Your task to perform on an android device: allow notifications from all sites in the chrome app Image 0: 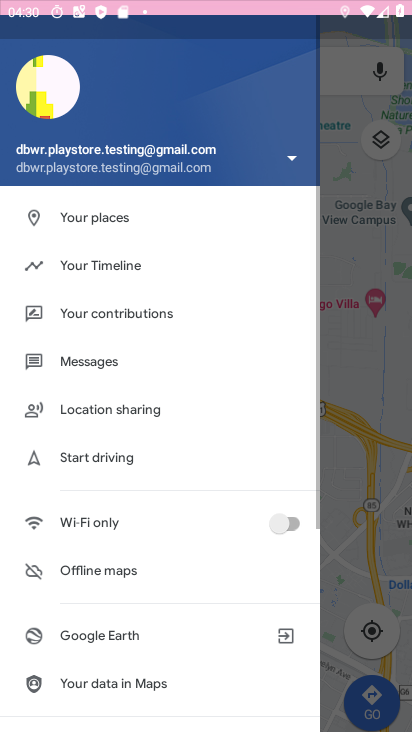
Step 0: click (151, 2)
Your task to perform on an android device: allow notifications from all sites in the chrome app Image 1: 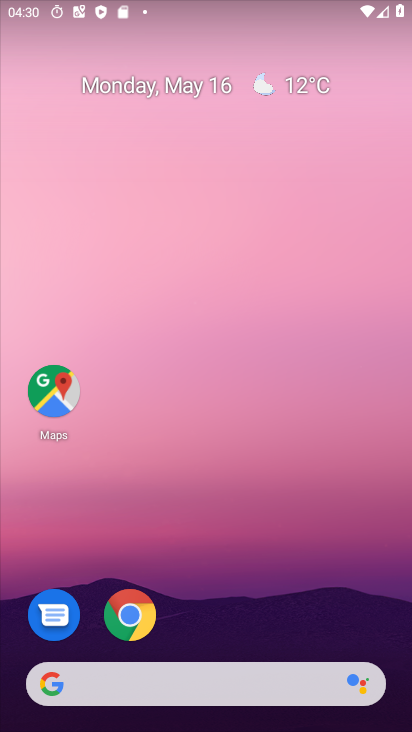
Step 1: drag from (237, 514) to (182, 1)
Your task to perform on an android device: allow notifications from all sites in the chrome app Image 2: 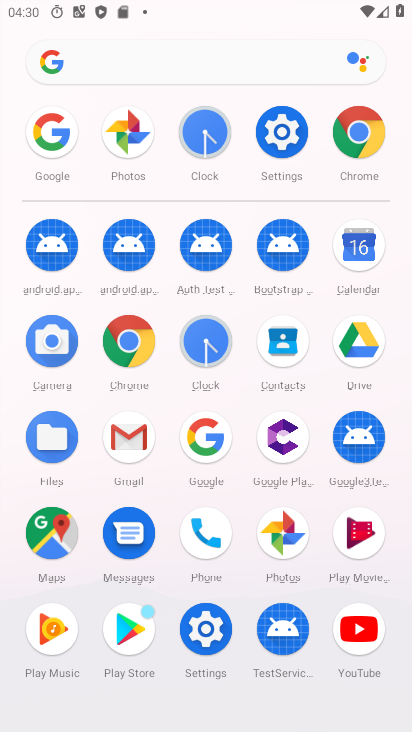
Step 2: drag from (213, 531) to (183, 15)
Your task to perform on an android device: allow notifications from all sites in the chrome app Image 3: 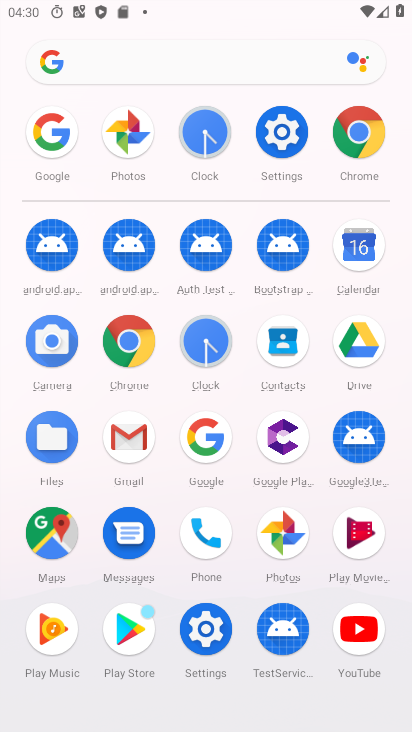
Step 3: click (354, 128)
Your task to perform on an android device: allow notifications from all sites in the chrome app Image 4: 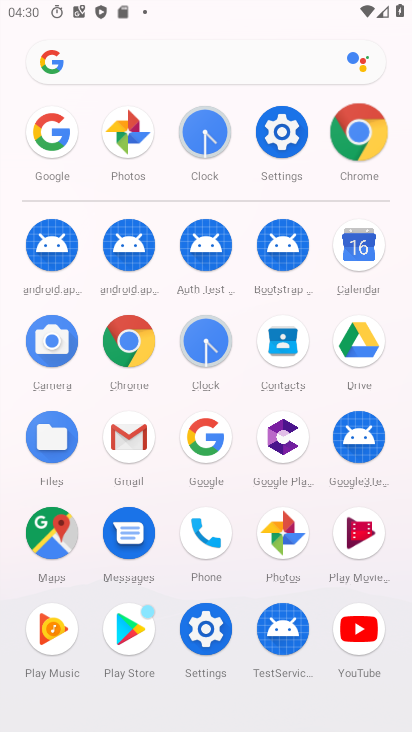
Step 4: click (356, 127)
Your task to perform on an android device: allow notifications from all sites in the chrome app Image 5: 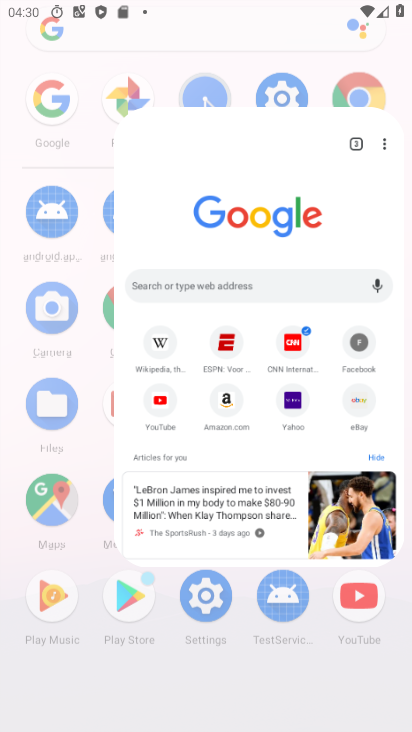
Step 5: click (356, 127)
Your task to perform on an android device: allow notifications from all sites in the chrome app Image 6: 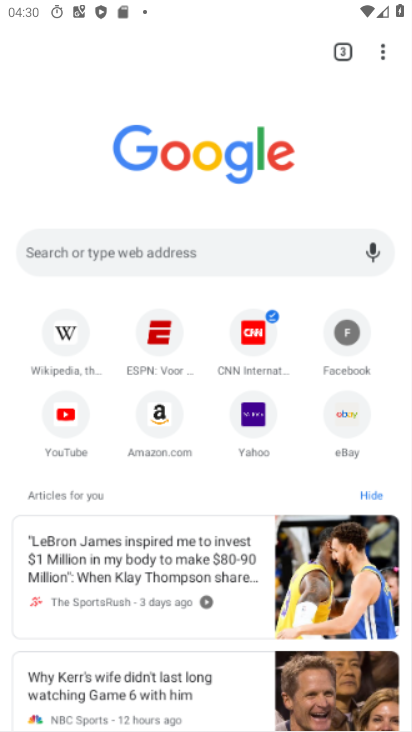
Step 6: click (356, 127)
Your task to perform on an android device: allow notifications from all sites in the chrome app Image 7: 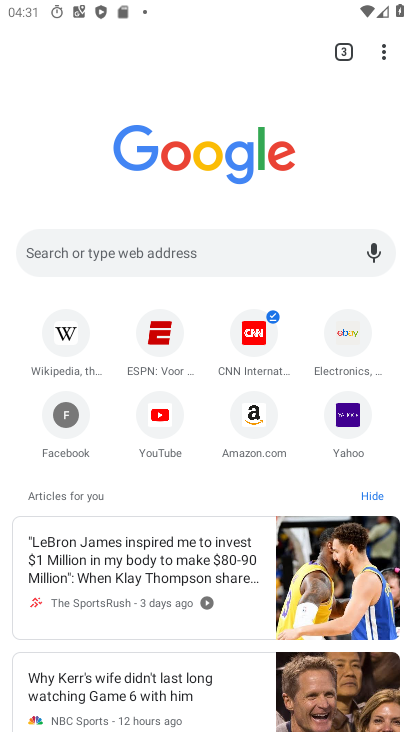
Step 7: drag from (384, 53) to (191, 148)
Your task to perform on an android device: allow notifications from all sites in the chrome app Image 8: 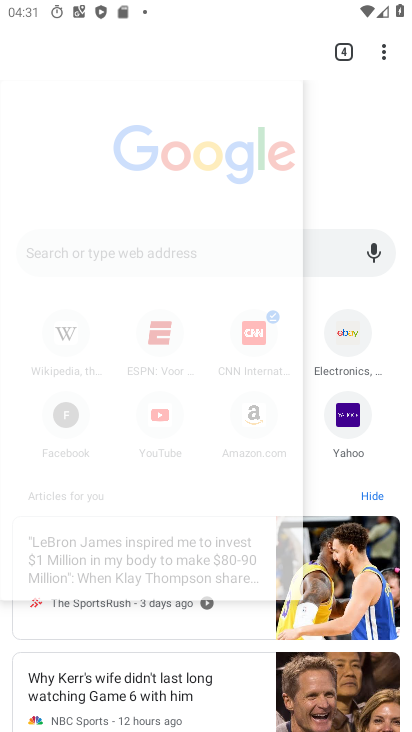
Step 8: click (191, 148)
Your task to perform on an android device: allow notifications from all sites in the chrome app Image 9: 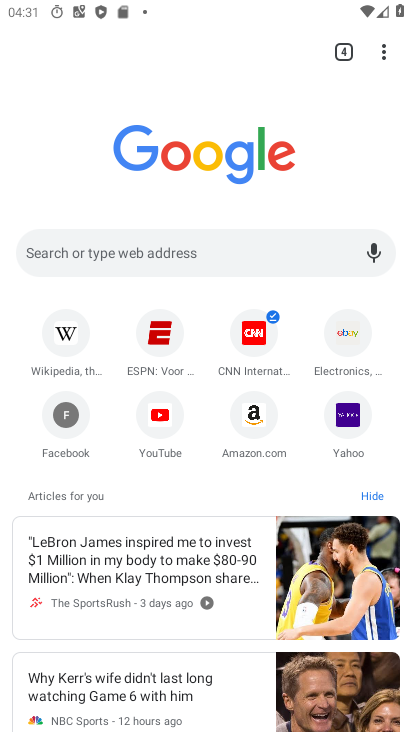
Step 9: click (383, 45)
Your task to perform on an android device: allow notifications from all sites in the chrome app Image 10: 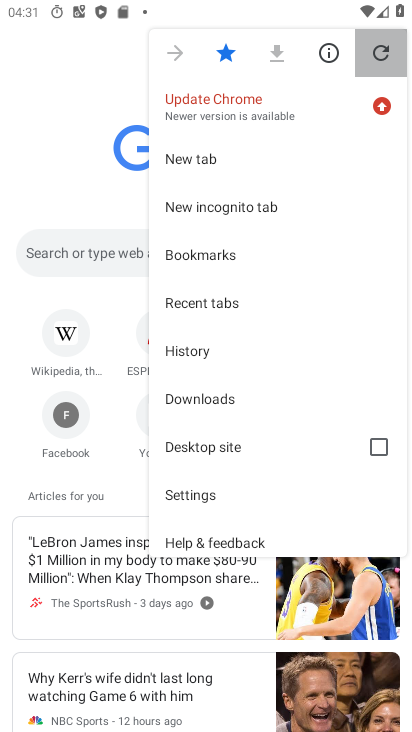
Step 10: click (378, 58)
Your task to perform on an android device: allow notifications from all sites in the chrome app Image 11: 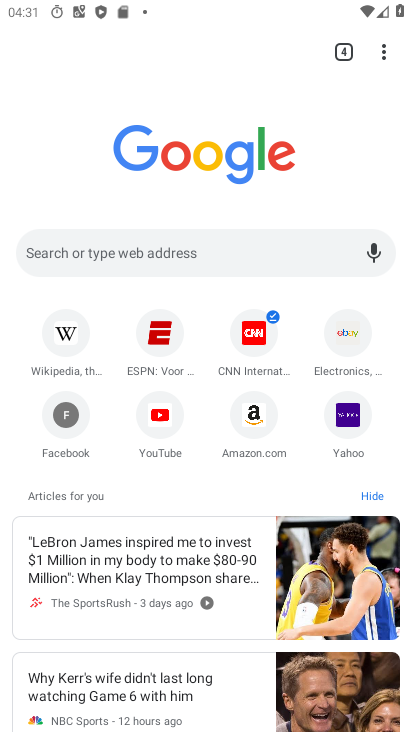
Step 11: click (382, 52)
Your task to perform on an android device: allow notifications from all sites in the chrome app Image 12: 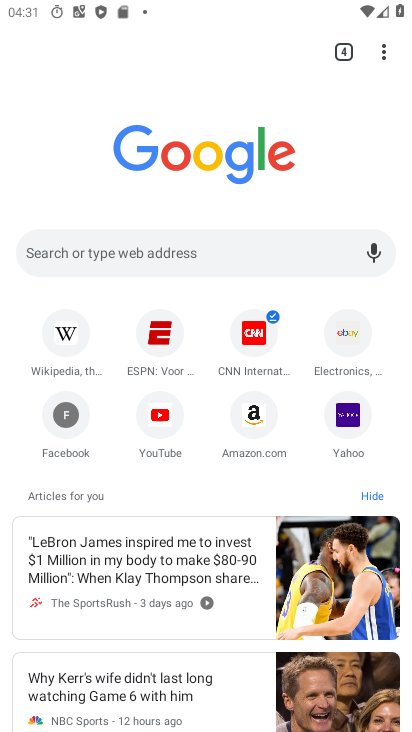
Step 12: click (379, 48)
Your task to perform on an android device: allow notifications from all sites in the chrome app Image 13: 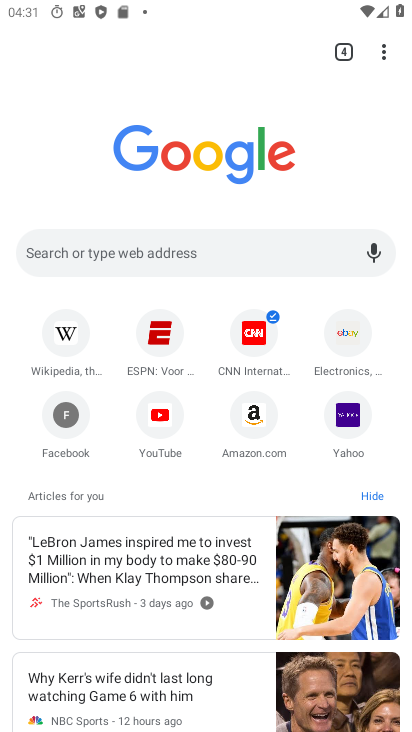
Step 13: click (380, 53)
Your task to perform on an android device: allow notifications from all sites in the chrome app Image 14: 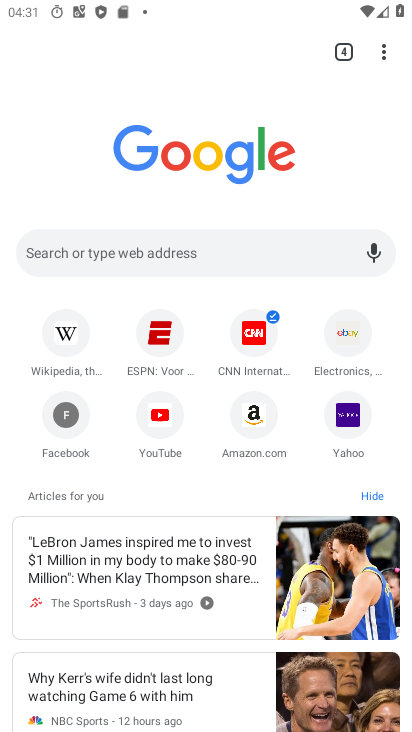
Step 14: drag from (380, 54) to (183, 144)
Your task to perform on an android device: allow notifications from all sites in the chrome app Image 15: 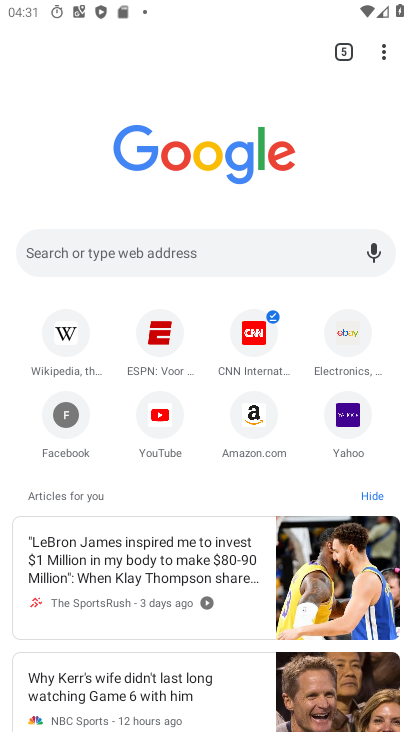
Step 15: click (377, 63)
Your task to perform on an android device: allow notifications from all sites in the chrome app Image 16: 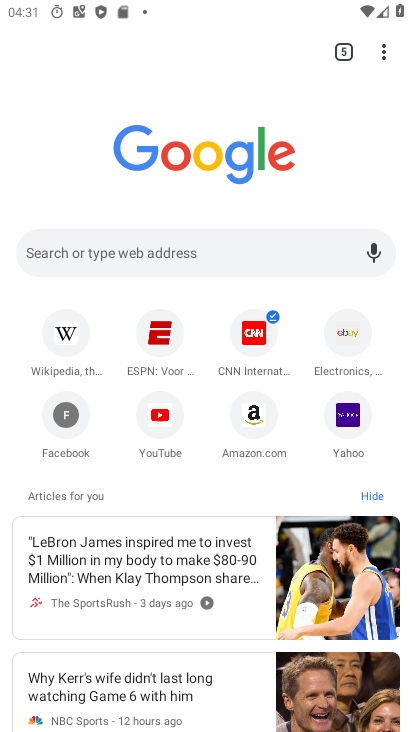
Step 16: click (383, 44)
Your task to perform on an android device: allow notifications from all sites in the chrome app Image 17: 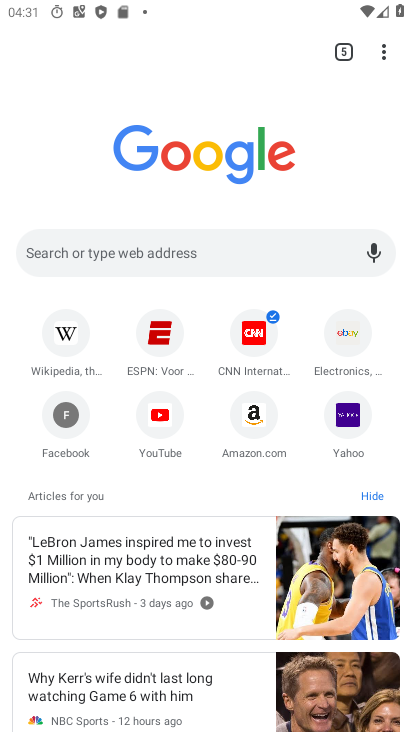
Step 17: click (381, 50)
Your task to perform on an android device: allow notifications from all sites in the chrome app Image 18: 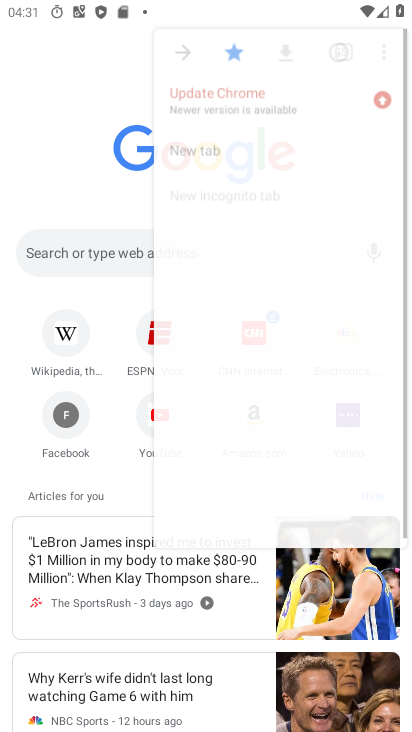
Step 18: click (381, 66)
Your task to perform on an android device: allow notifications from all sites in the chrome app Image 19: 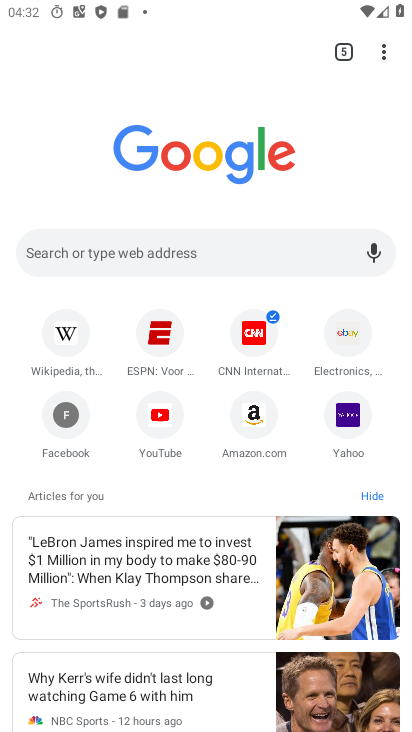
Step 19: click (388, 57)
Your task to perform on an android device: allow notifications from all sites in the chrome app Image 20: 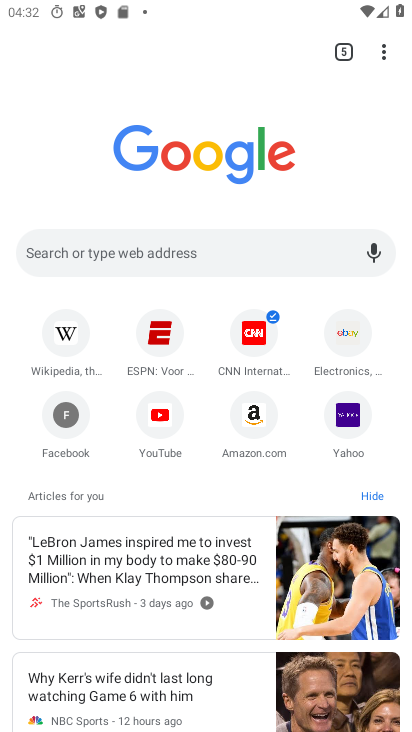
Step 20: click (380, 53)
Your task to perform on an android device: allow notifications from all sites in the chrome app Image 21: 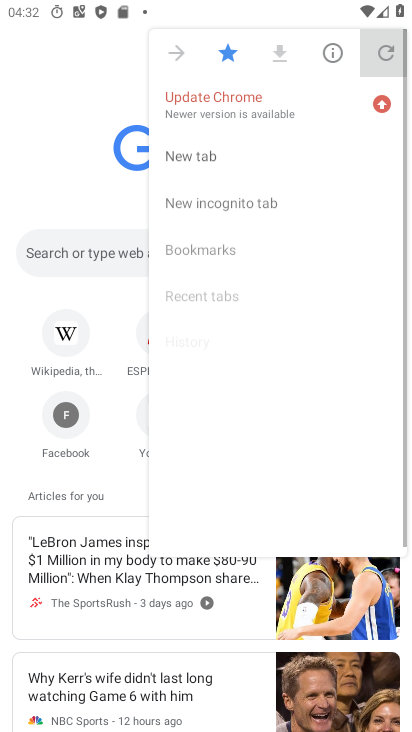
Step 21: click (381, 52)
Your task to perform on an android device: allow notifications from all sites in the chrome app Image 22: 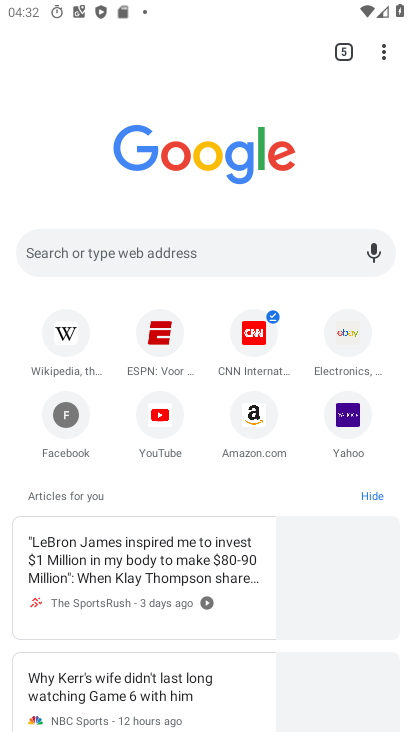
Step 22: click (378, 56)
Your task to perform on an android device: allow notifications from all sites in the chrome app Image 23: 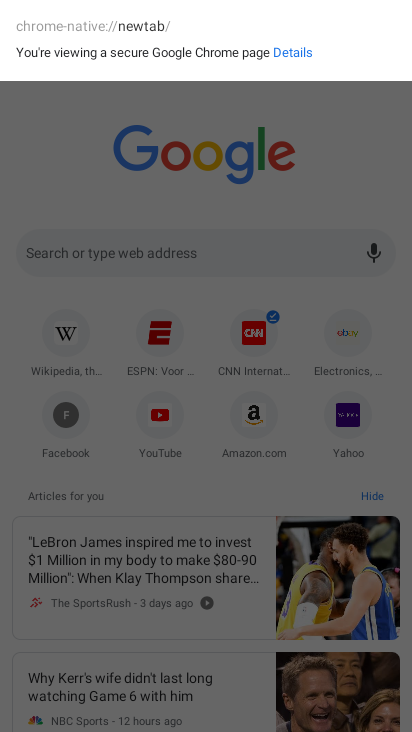
Step 23: click (342, 179)
Your task to perform on an android device: allow notifications from all sites in the chrome app Image 24: 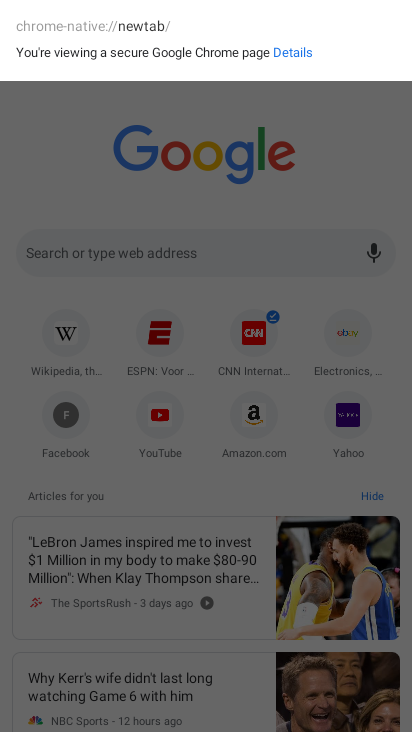
Step 24: click (343, 180)
Your task to perform on an android device: allow notifications from all sites in the chrome app Image 25: 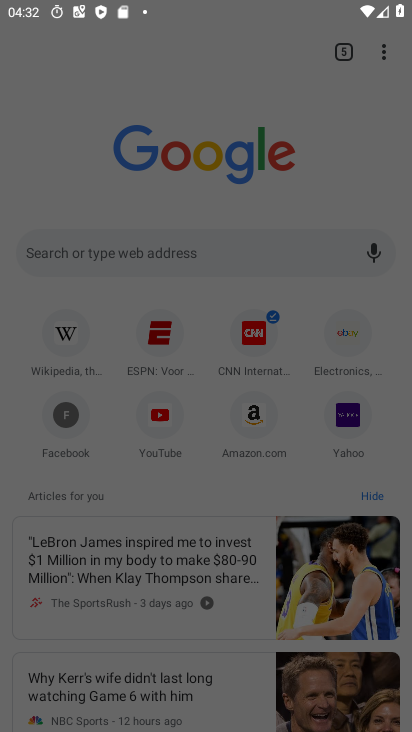
Step 25: click (343, 180)
Your task to perform on an android device: allow notifications from all sites in the chrome app Image 26: 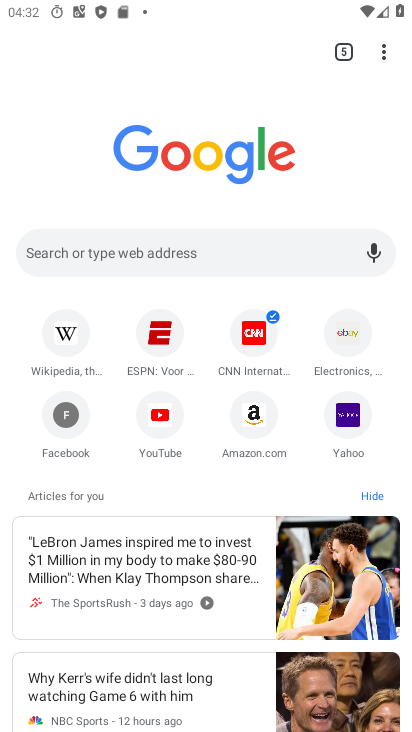
Step 26: click (343, 180)
Your task to perform on an android device: allow notifications from all sites in the chrome app Image 27: 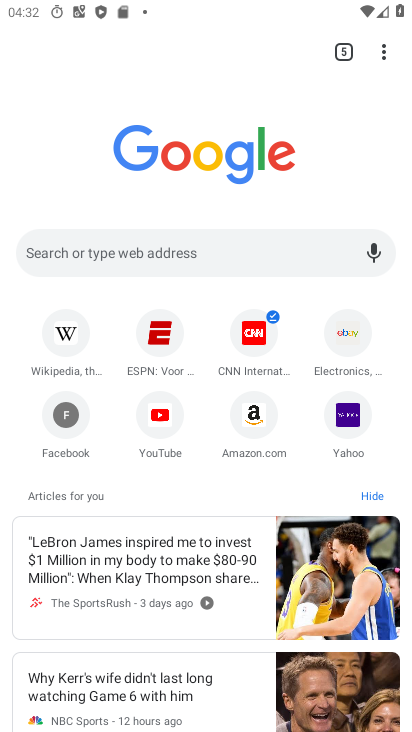
Step 27: click (385, 79)
Your task to perform on an android device: allow notifications from all sites in the chrome app Image 28: 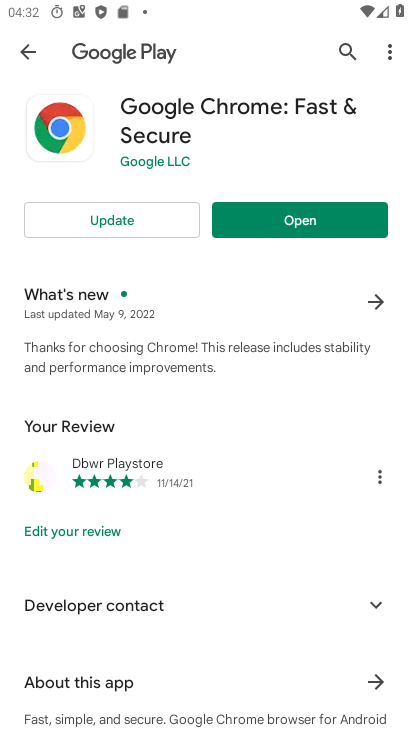
Step 28: click (142, 228)
Your task to perform on an android device: allow notifications from all sites in the chrome app Image 29: 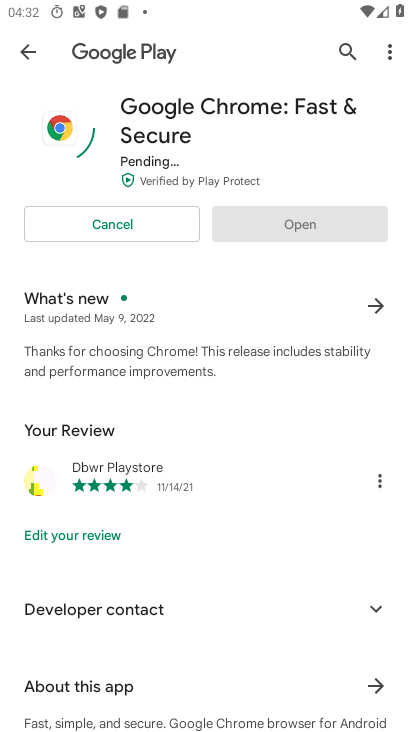
Step 29: click (141, 223)
Your task to perform on an android device: allow notifications from all sites in the chrome app Image 30: 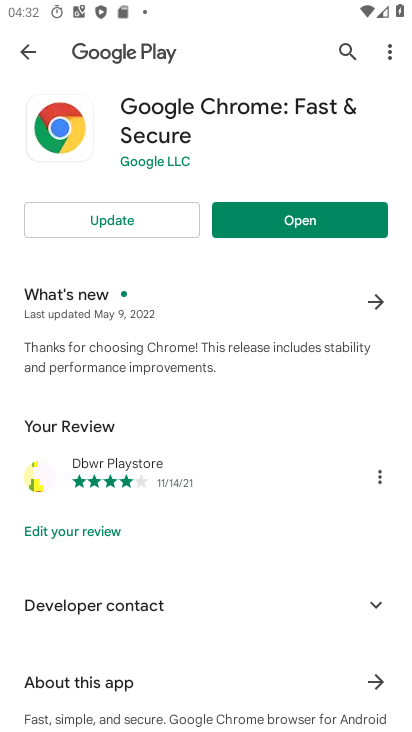
Step 30: click (298, 229)
Your task to perform on an android device: allow notifications from all sites in the chrome app Image 31: 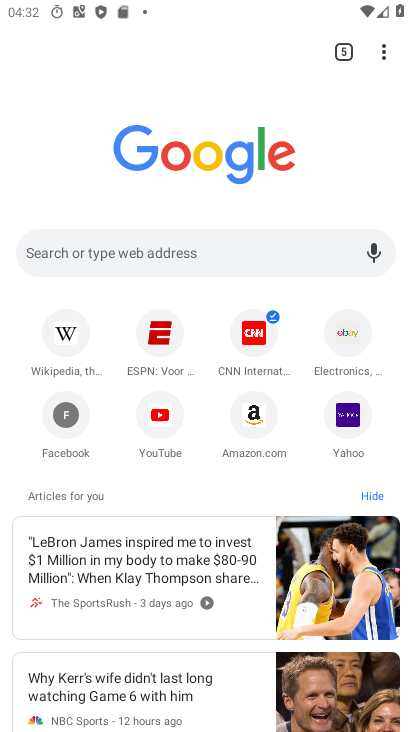
Step 31: drag from (207, 561) to (136, 192)
Your task to perform on an android device: allow notifications from all sites in the chrome app Image 32: 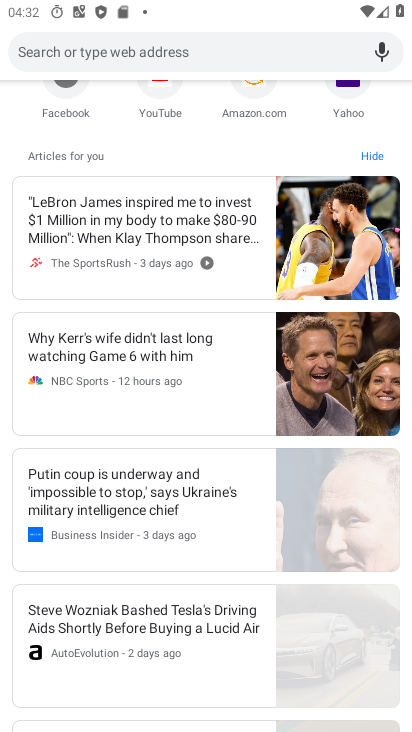
Step 32: drag from (282, 190) to (275, 67)
Your task to perform on an android device: allow notifications from all sites in the chrome app Image 33: 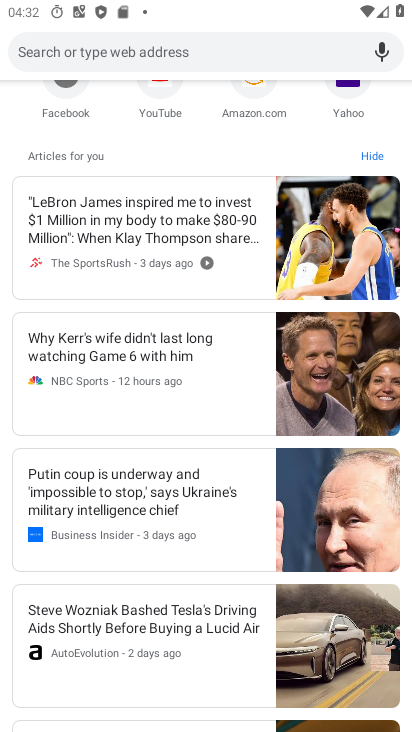
Step 33: drag from (210, 456) to (220, 162)
Your task to perform on an android device: allow notifications from all sites in the chrome app Image 34: 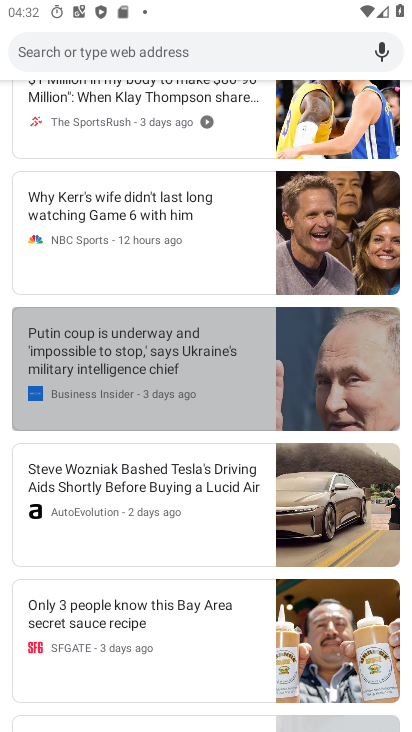
Step 34: drag from (315, 582) to (292, 257)
Your task to perform on an android device: allow notifications from all sites in the chrome app Image 35: 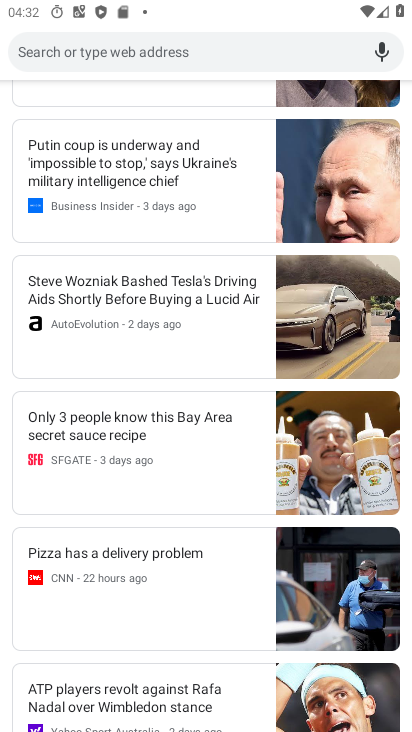
Step 35: drag from (72, 282) to (201, 648)
Your task to perform on an android device: allow notifications from all sites in the chrome app Image 36: 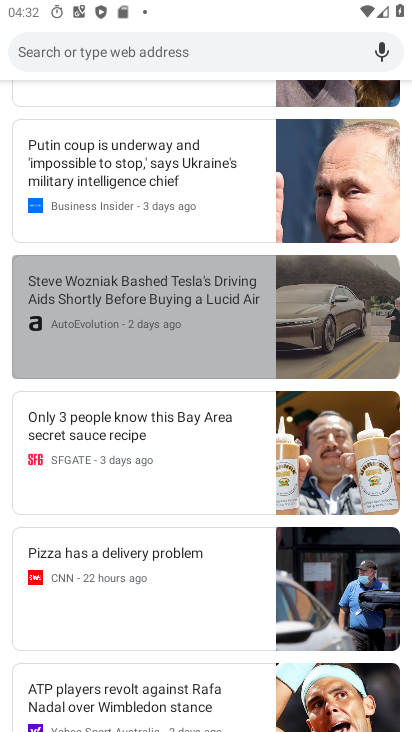
Step 36: drag from (152, 378) to (204, 724)
Your task to perform on an android device: allow notifications from all sites in the chrome app Image 37: 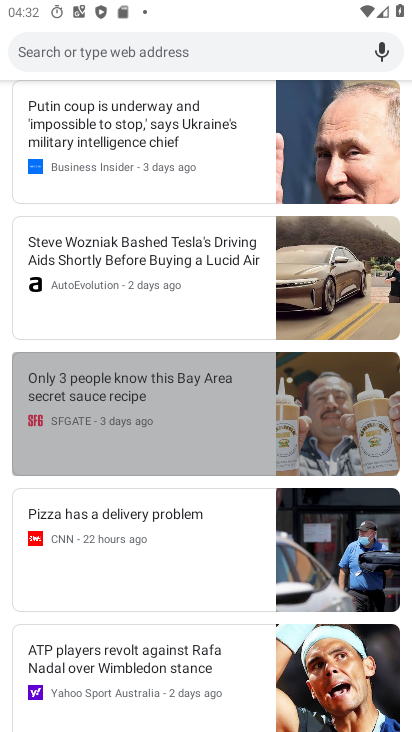
Step 37: drag from (202, 337) to (177, 730)
Your task to perform on an android device: allow notifications from all sites in the chrome app Image 38: 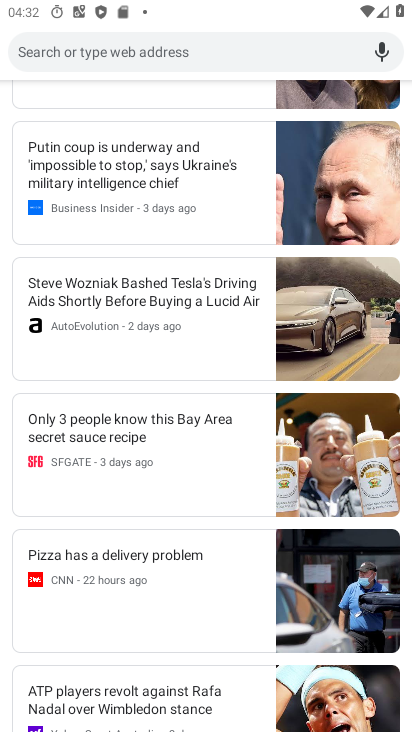
Step 38: drag from (146, 272) to (216, 663)
Your task to perform on an android device: allow notifications from all sites in the chrome app Image 39: 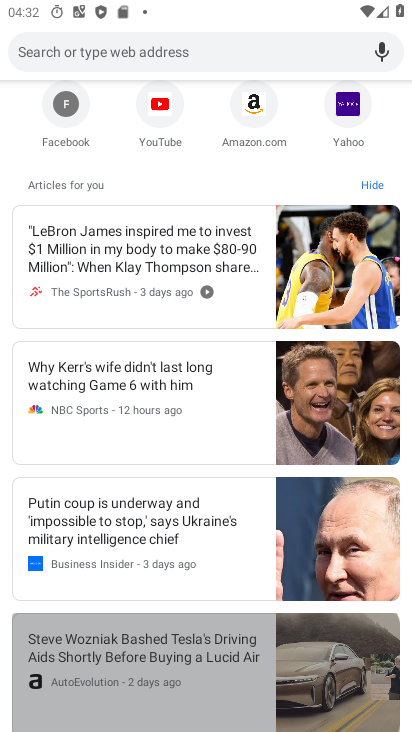
Step 39: drag from (136, 301) to (347, 709)
Your task to perform on an android device: allow notifications from all sites in the chrome app Image 40: 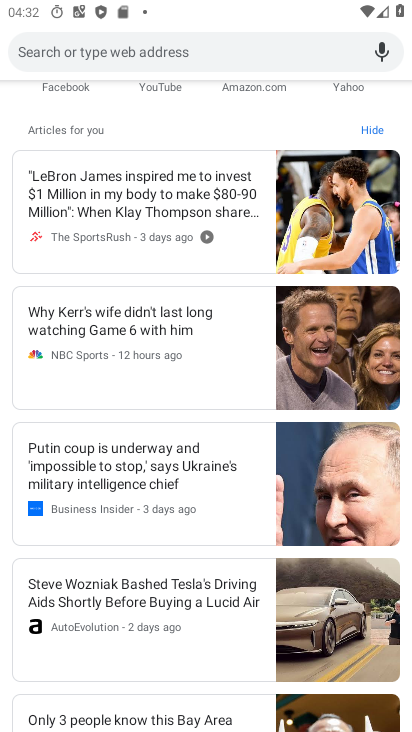
Step 40: click (336, 450)
Your task to perform on an android device: allow notifications from all sites in the chrome app Image 41: 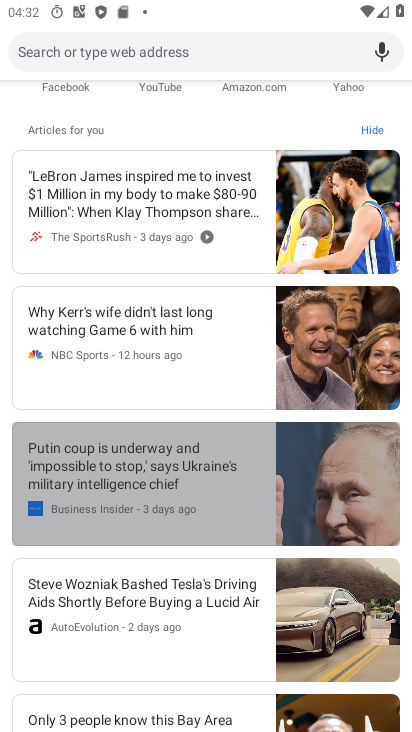
Step 41: drag from (304, 308) to (304, 412)
Your task to perform on an android device: allow notifications from all sites in the chrome app Image 42: 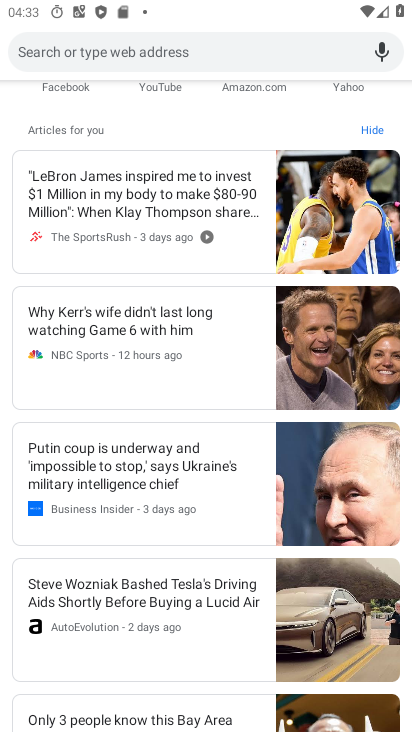
Step 42: drag from (220, 499) to (185, 380)
Your task to perform on an android device: allow notifications from all sites in the chrome app Image 43: 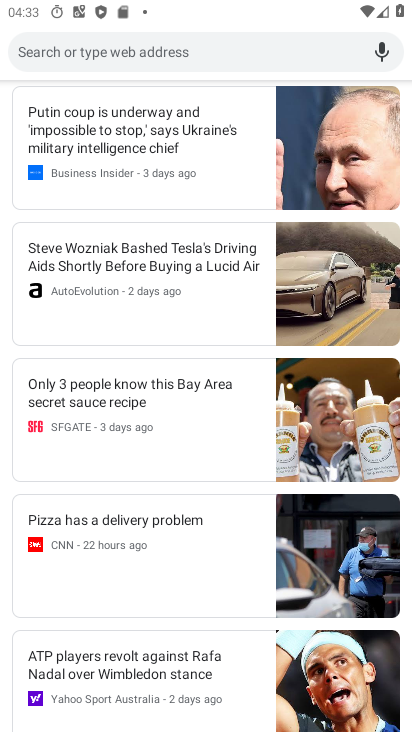
Step 43: drag from (167, 204) to (255, 417)
Your task to perform on an android device: allow notifications from all sites in the chrome app Image 44: 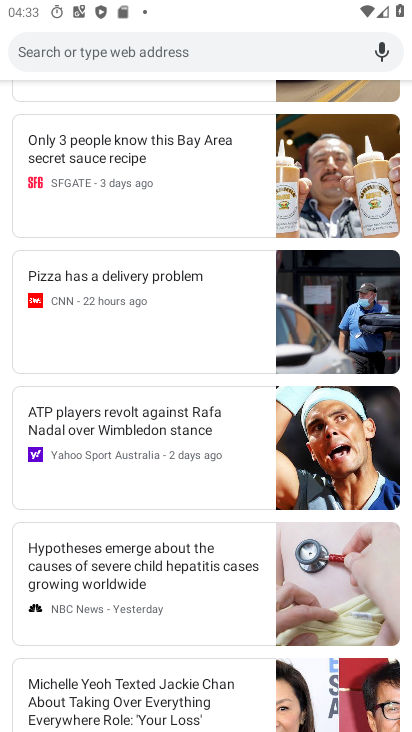
Step 44: drag from (209, 78) to (276, 276)
Your task to perform on an android device: allow notifications from all sites in the chrome app Image 45: 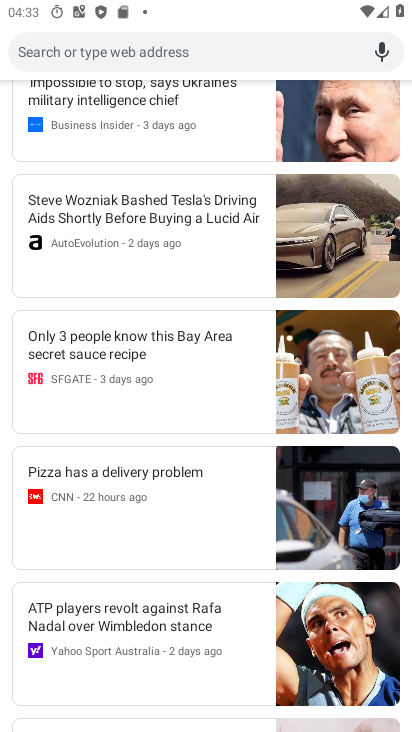
Step 45: drag from (159, 156) to (232, 417)
Your task to perform on an android device: allow notifications from all sites in the chrome app Image 46: 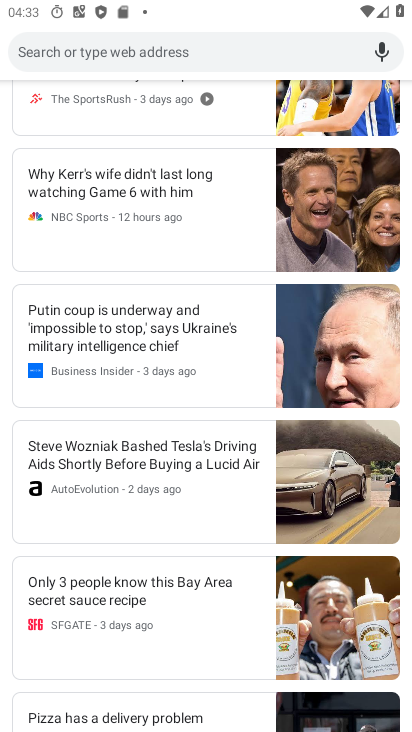
Step 46: drag from (221, 169) to (306, 451)
Your task to perform on an android device: allow notifications from all sites in the chrome app Image 47: 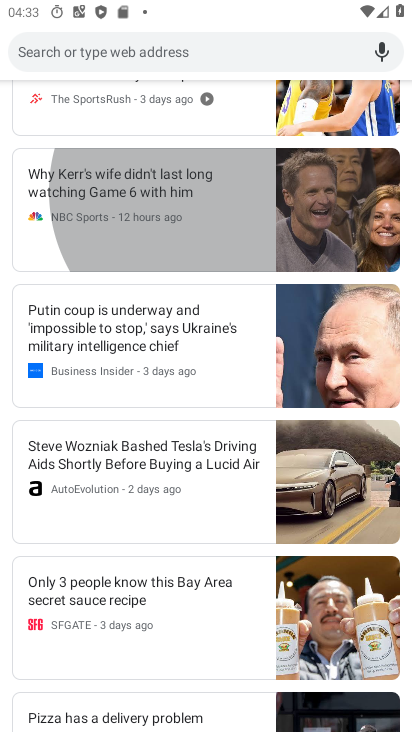
Step 47: drag from (268, 178) to (223, 724)
Your task to perform on an android device: allow notifications from all sites in the chrome app Image 48: 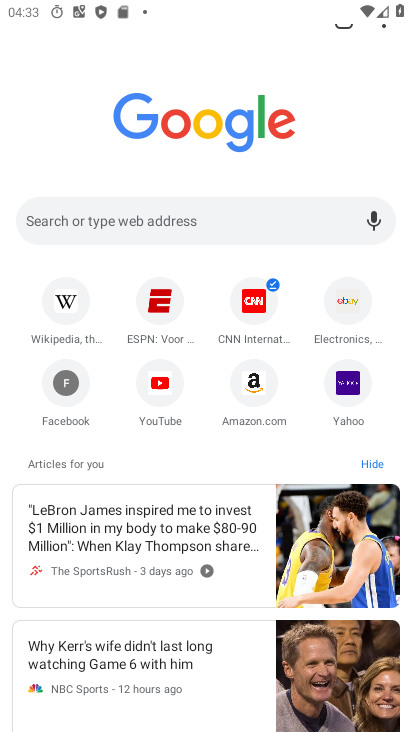
Step 48: click (269, 593)
Your task to perform on an android device: allow notifications from all sites in the chrome app Image 49: 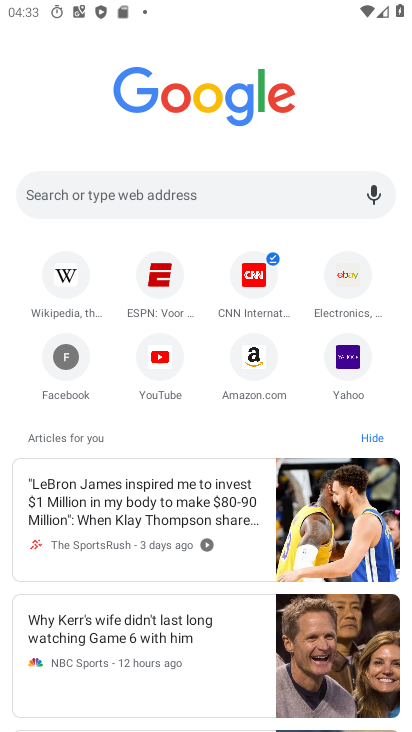
Step 49: drag from (84, 227) to (279, 578)
Your task to perform on an android device: allow notifications from all sites in the chrome app Image 50: 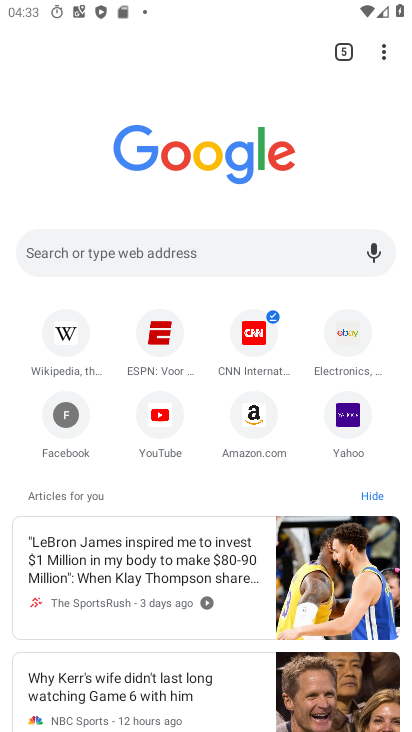
Step 50: drag from (384, 51) to (178, 493)
Your task to perform on an android device: allow notifications from all sites in the chrome app Image 51: 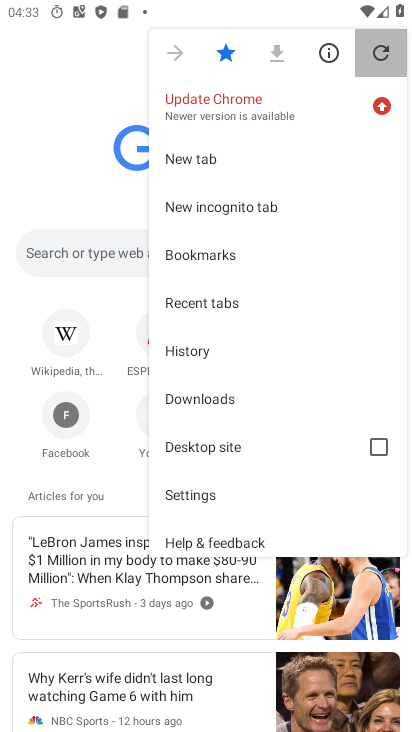
Step 51: click (179, 494)
Your task to perform on an android device: allow notifications from all sites in the chrome app Image 52: 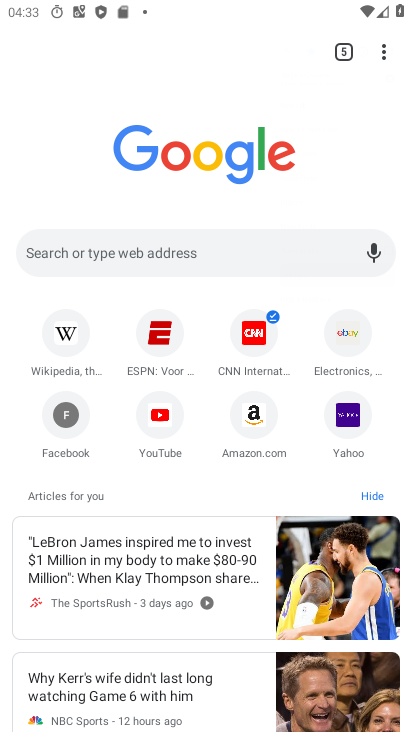
Step 52: click (179, 494)
Your task to perform on an android device: allow notifications from all sites in the chrome app Image 53: 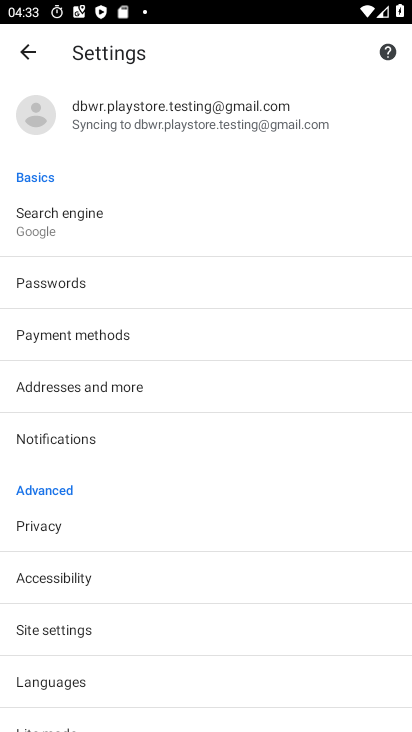
Step 53: drag from (126, 513) to (83, 16)
Your task to perform on an android device: allow notifications from all sites in the chrome app Image 54: 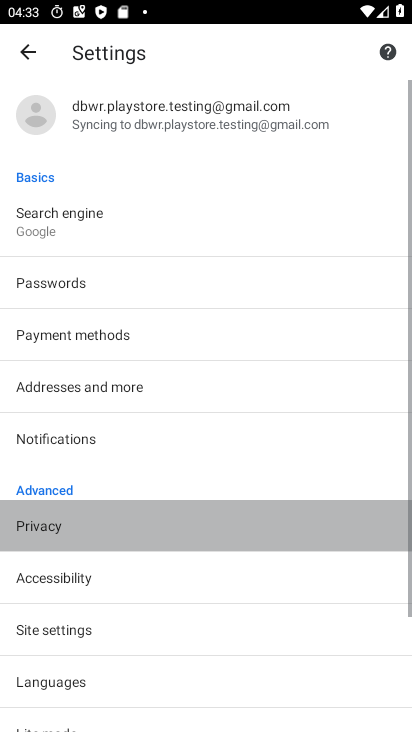
Step 54: drag from (97, 492) to (87, 93)
Your task to perform on an android device: allow notifications from all sites in the chrome app Image 55: 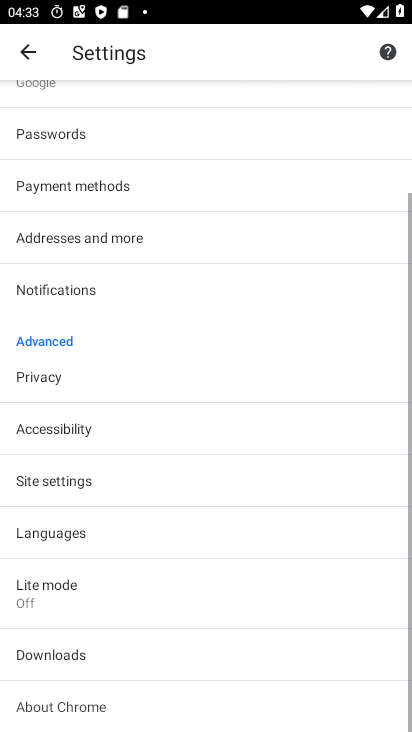
Step 55: drag from (165, 479) to (58, 68)
Your task to perform on an android device: allow notifications from all sites in the chrome app Image 56: 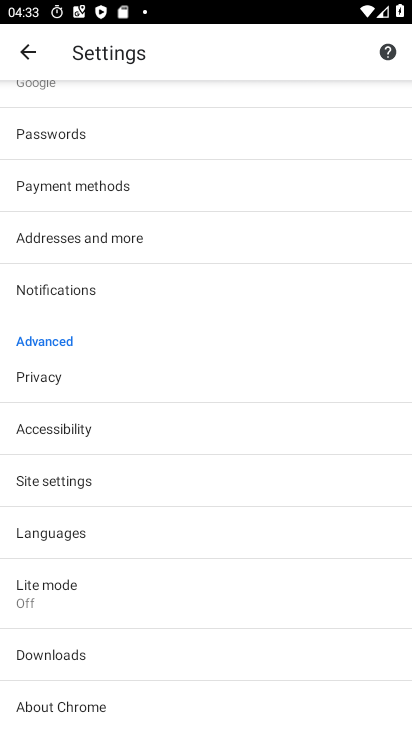
Step 56: drag from (70, 265) to (126, 647)
Your task to perform on an android device: allow notifications from all sites in the chrome app Image 57: 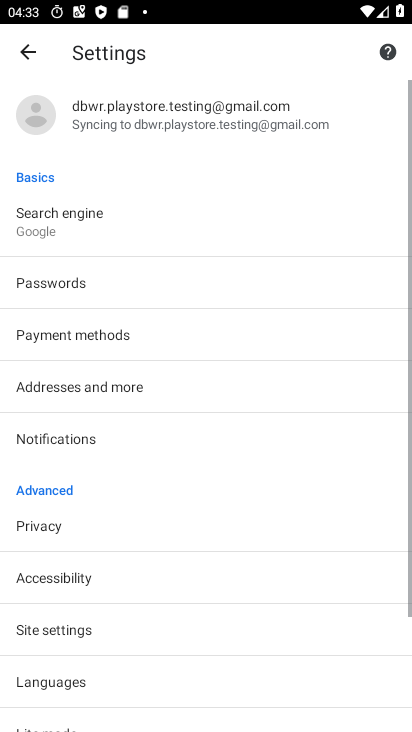
Step 57: drag from (101, 222) to (181, 579)
Your task to perform on an android device: allow notifications from all sites in the chrome app Image 58: 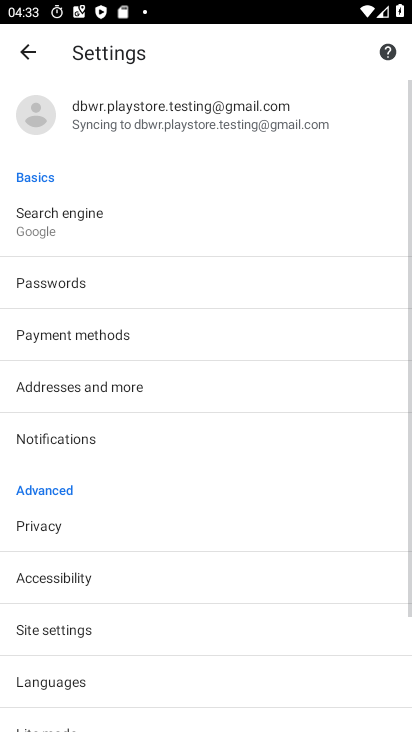
Step 58: drag from (79, 598) to (164, 38)
Your task to perform on an android device: allow notifications from all sites in the chrome app Image 59: 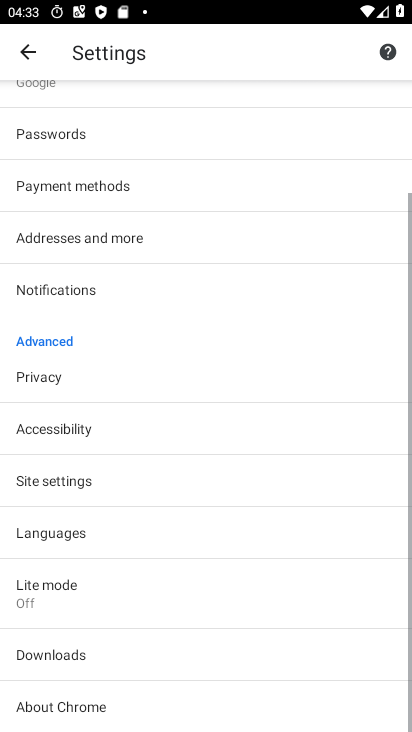
Step 59: click (55, 626)
Your task to perform on an android device: allow notifications from all sites in the chrome app Image 60: 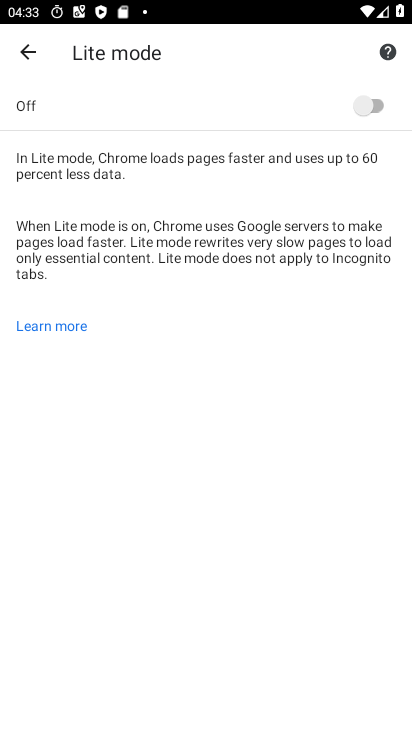
Step 60: click (40, 476)
Your task to perform on an android device: allow notifications from all sites in the chrome app Image 61: 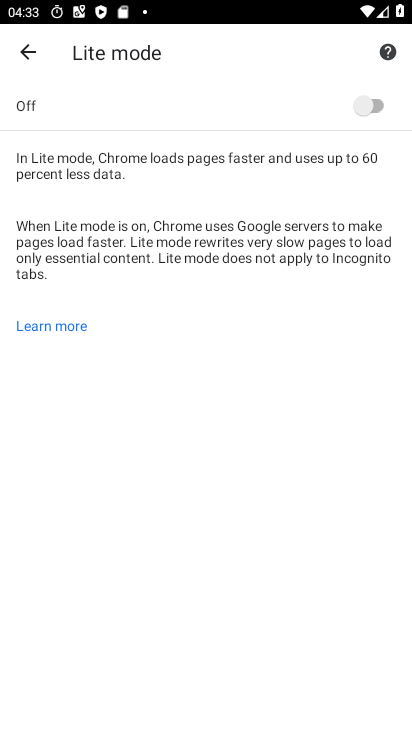
Step 61: click (42, 478)
Your task to perform on an android device: allow notifications from all sites in the chrome app Image 62: 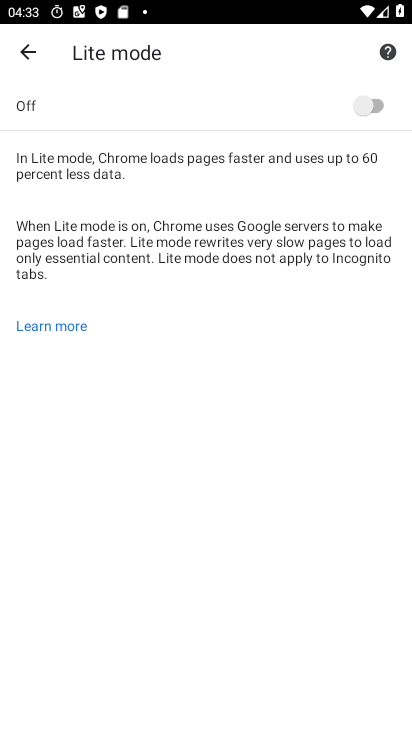
Step 62: click (368, 101)
Your task to perform on an android device: allow notifications from all sites in the chrome app Image 63: 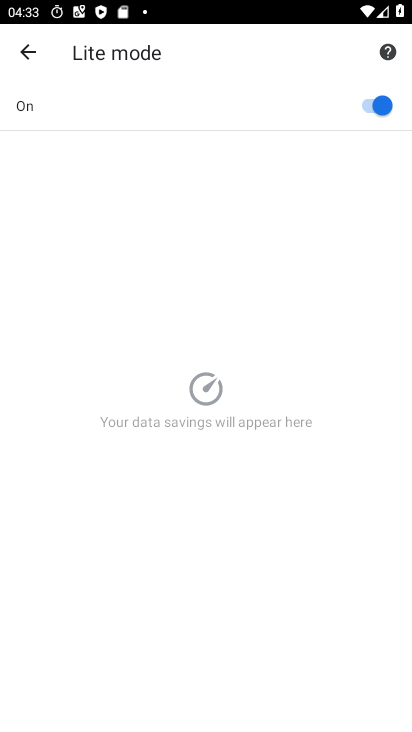
Step 63: task complete